Your task to perform on an android device: open app "Fetch Rewards" (install if not already installed) and go to login screen Image 0: 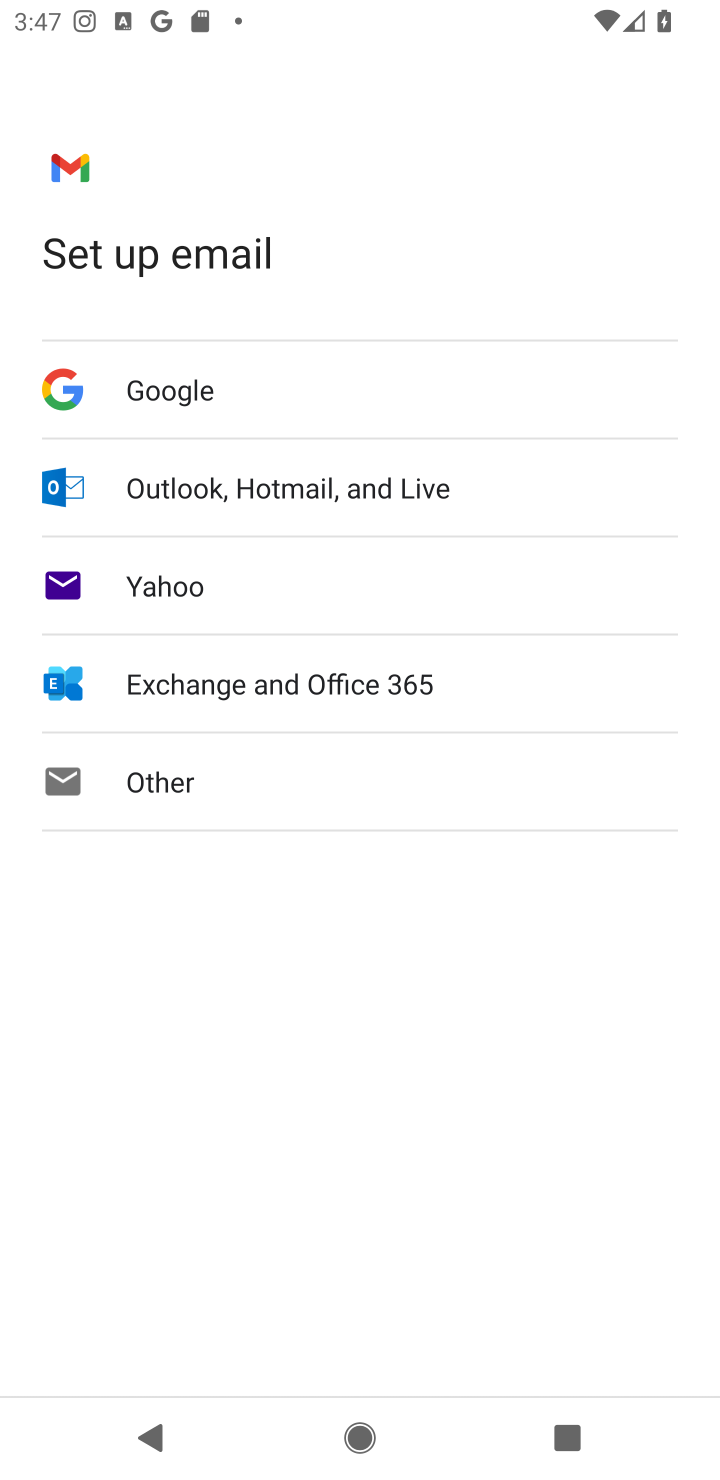
Step 0: press home button
Your task to perform on an android device: open app "Fetch Rewards" (install if not already installed) and go to login screen Image 1: 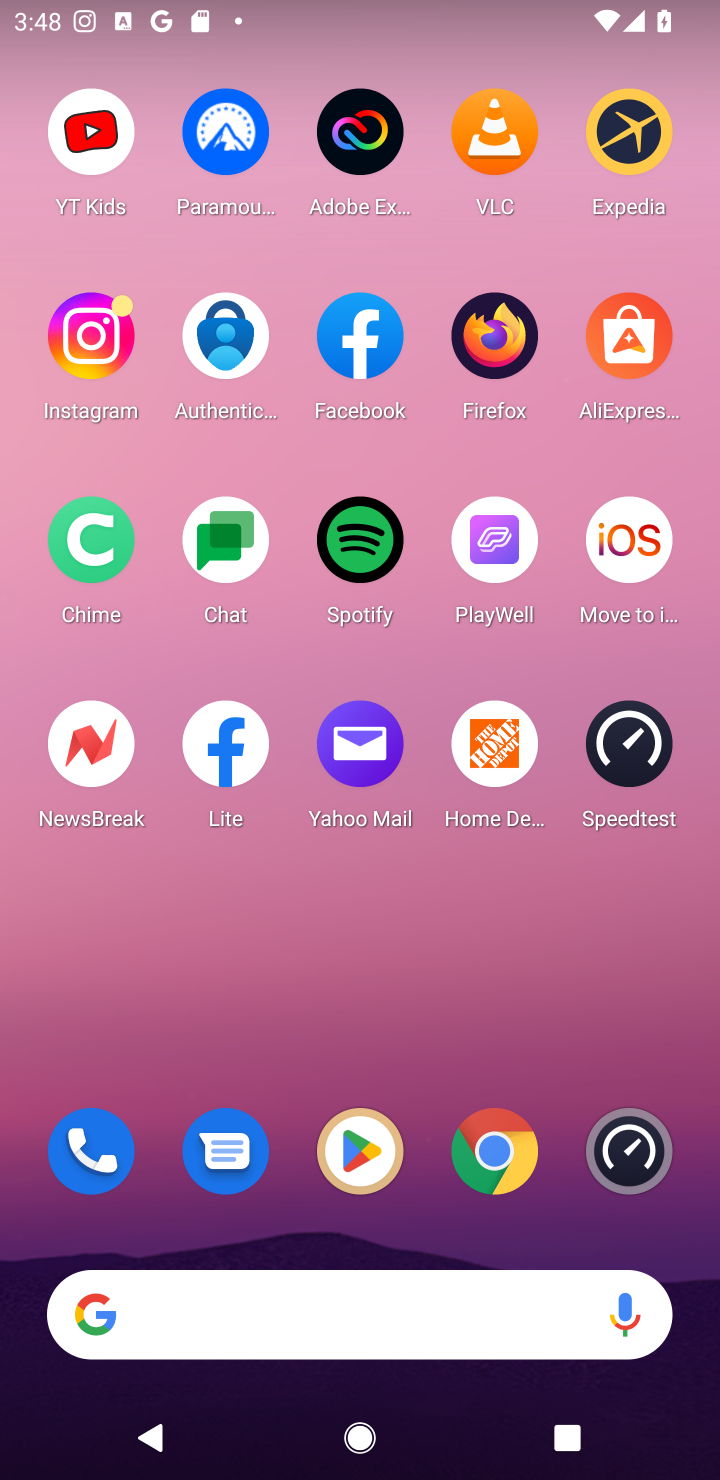
Step 1: press home button
Your task to perform on an android device: open app "Fetch Rewards" (install if not already installed) and go to login screen Image 2: 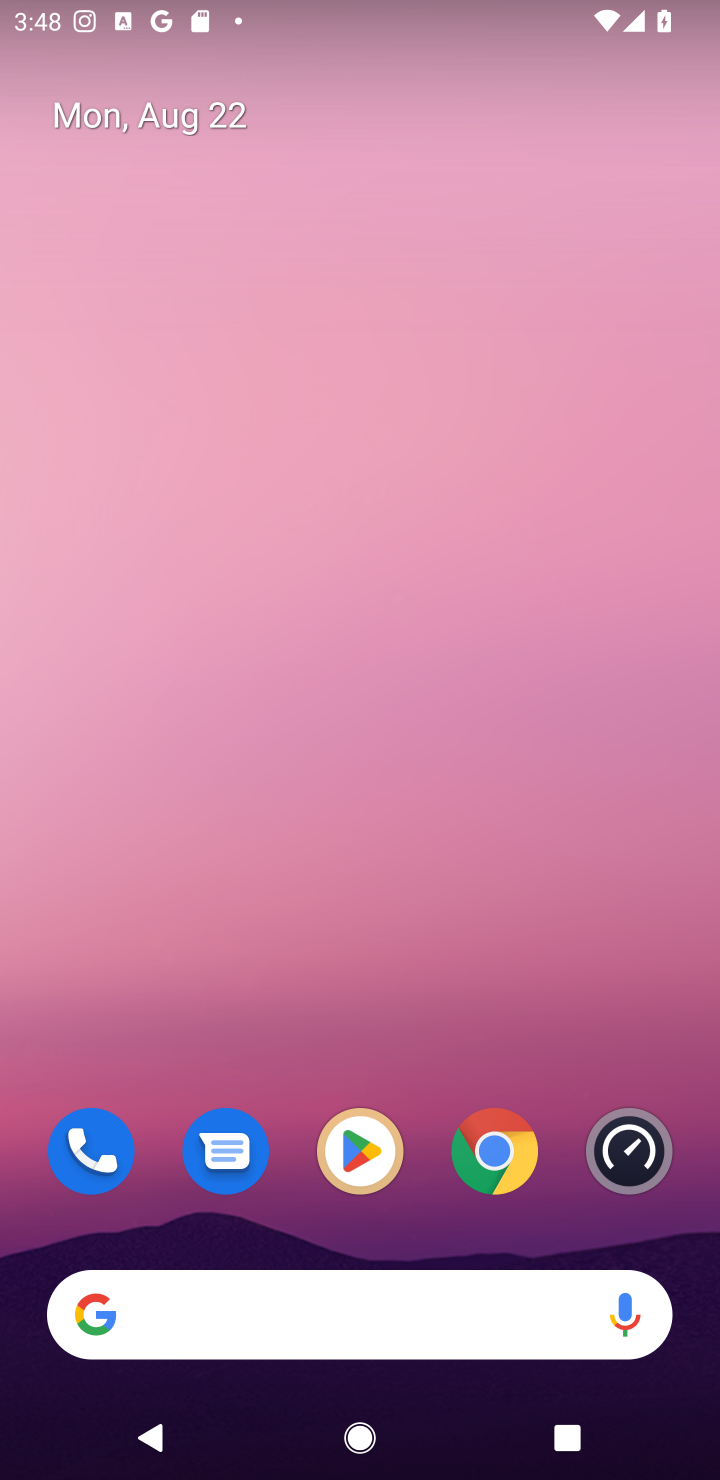
Step 2: click (354, 1139)
Your task to perform on an android device: open app "Fetch Rewards" (install if not already installed) and go to login screen Image 3: 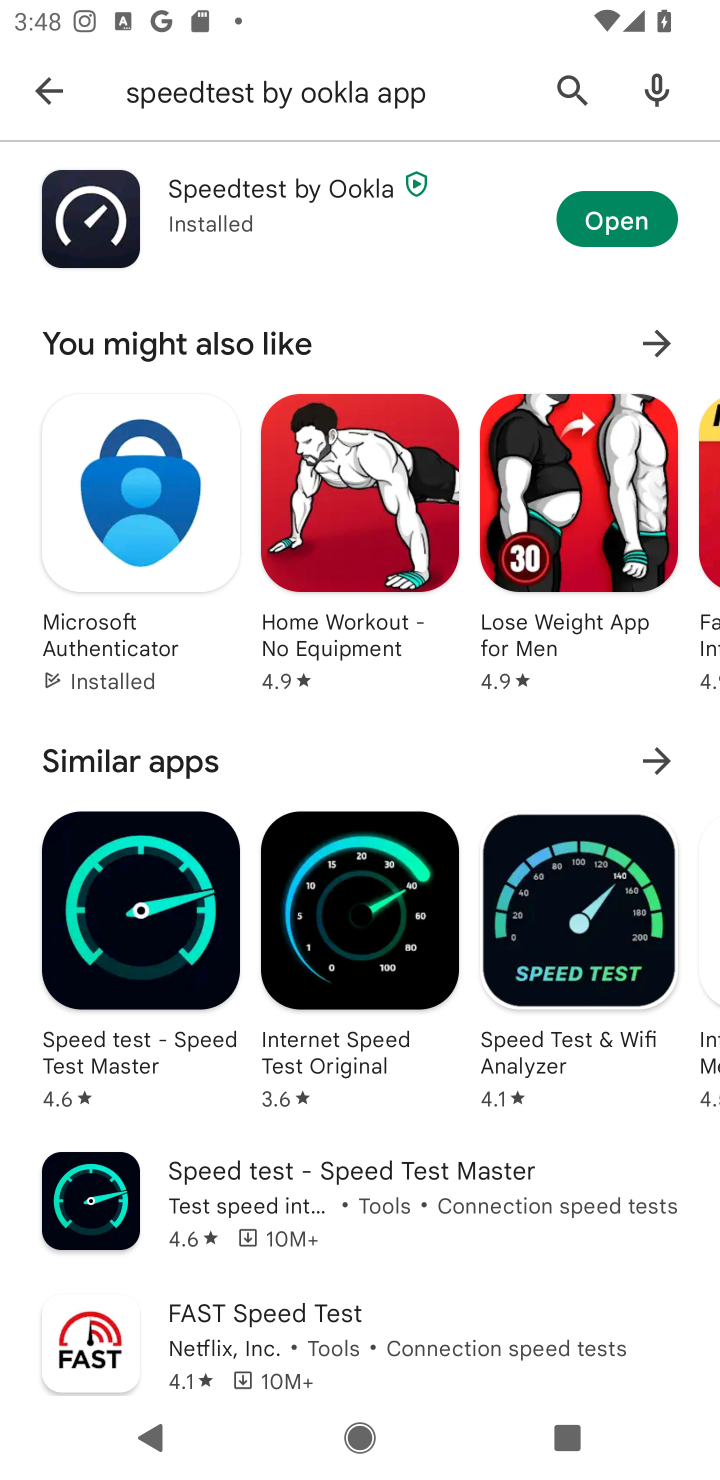
Step 3: click (562, 82)
Your task to perform on an android device: open app "Fetch Rewards" (install if not already installed) and go to login screen Image 4: 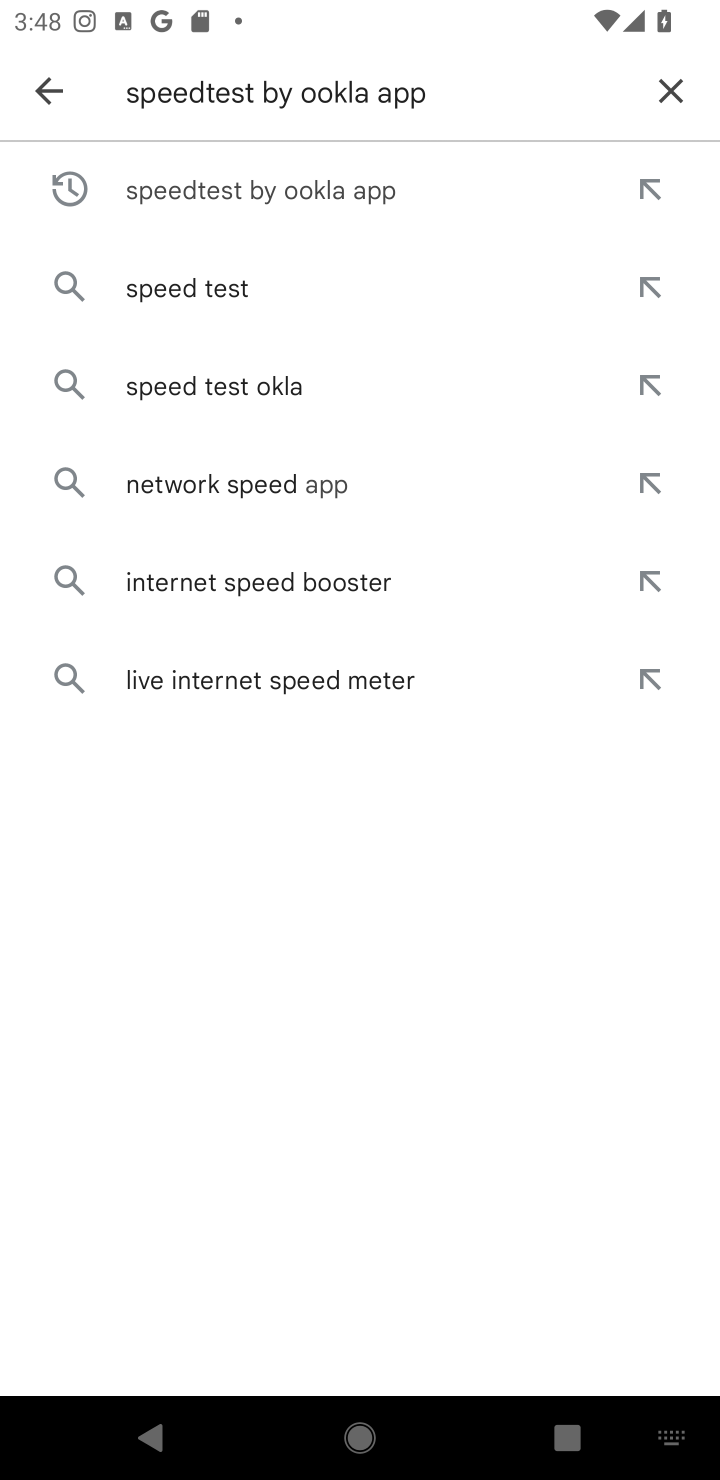
Step 4: click (661, 92)
Your task to perform on an android device: open app "Fetch Rewards" (install if not already installed) and go to login screen Image 5: 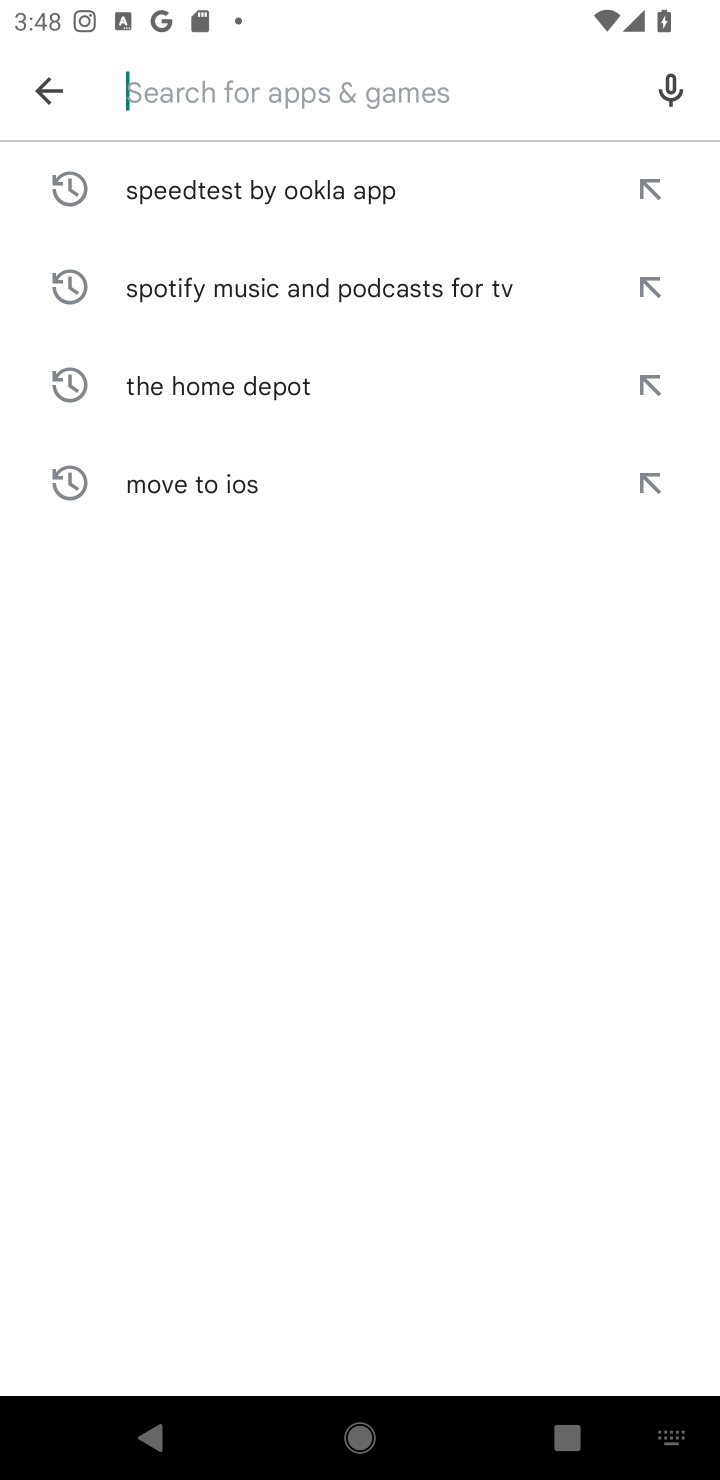
Step 5: type "Fetch Rewards"
Your task to perform on an android device: open app "Fetch Rewards" (install if not already installed) and go to login screen Image 6: 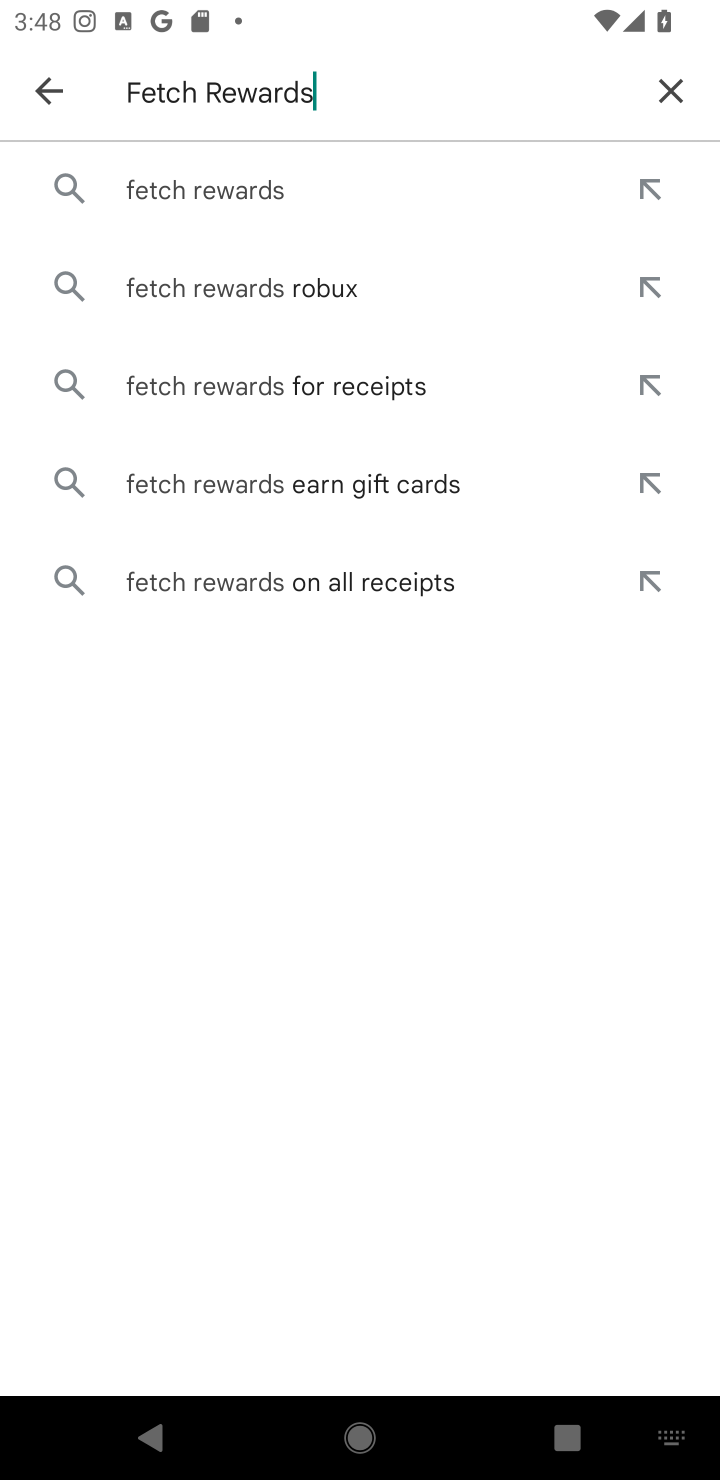
Step 6: click (256, 187)
Your task to perform on an android device: open app "Fetch Rewards" (install if not already installed) and go to login screen Image 7: 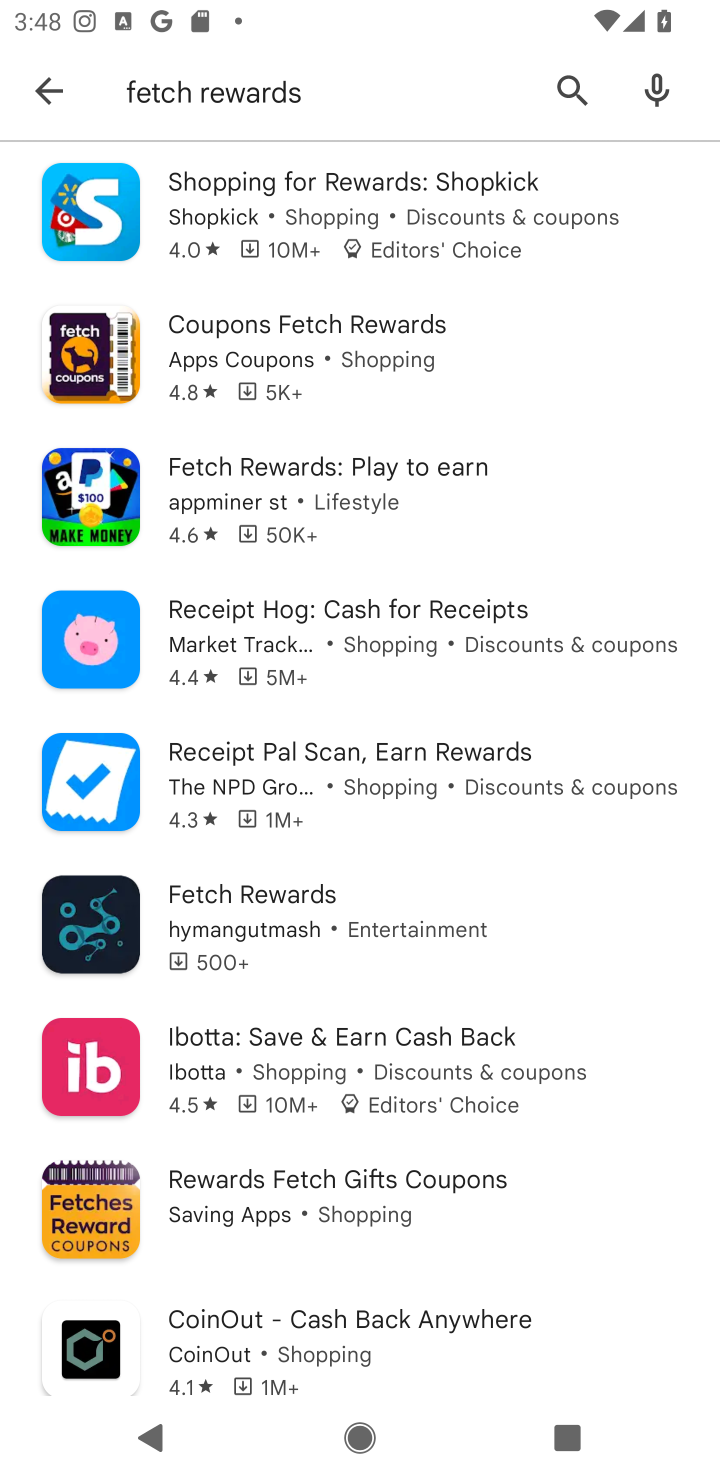
Step 7: click (212, 884)
Your task to perform on an android device: open app "Fetch Rewards" (install if not already installed) and go to login screen Image 8: 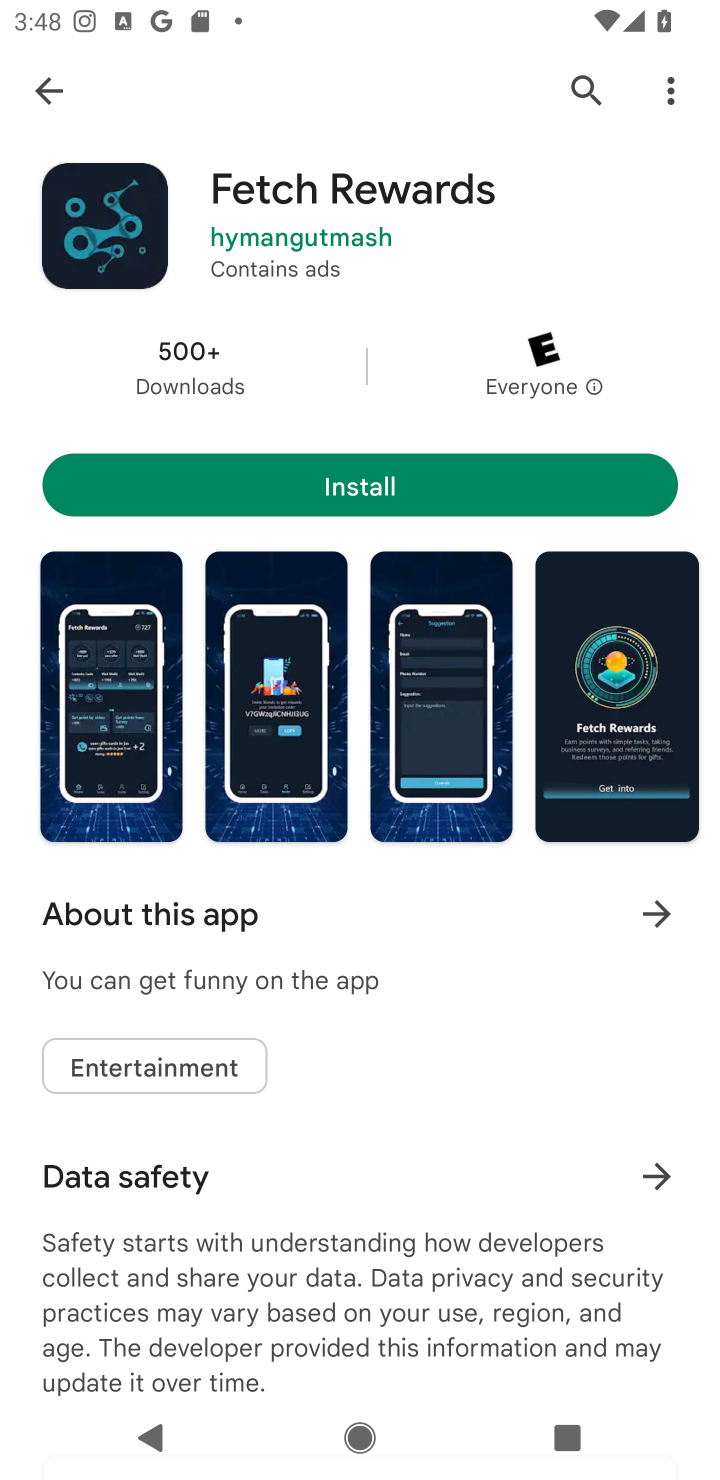
Step 8: click (393, 490)
Your task to perform on an android device: open app "Fetch Rewards" (install if not already installed) and go to login screen Image 9: 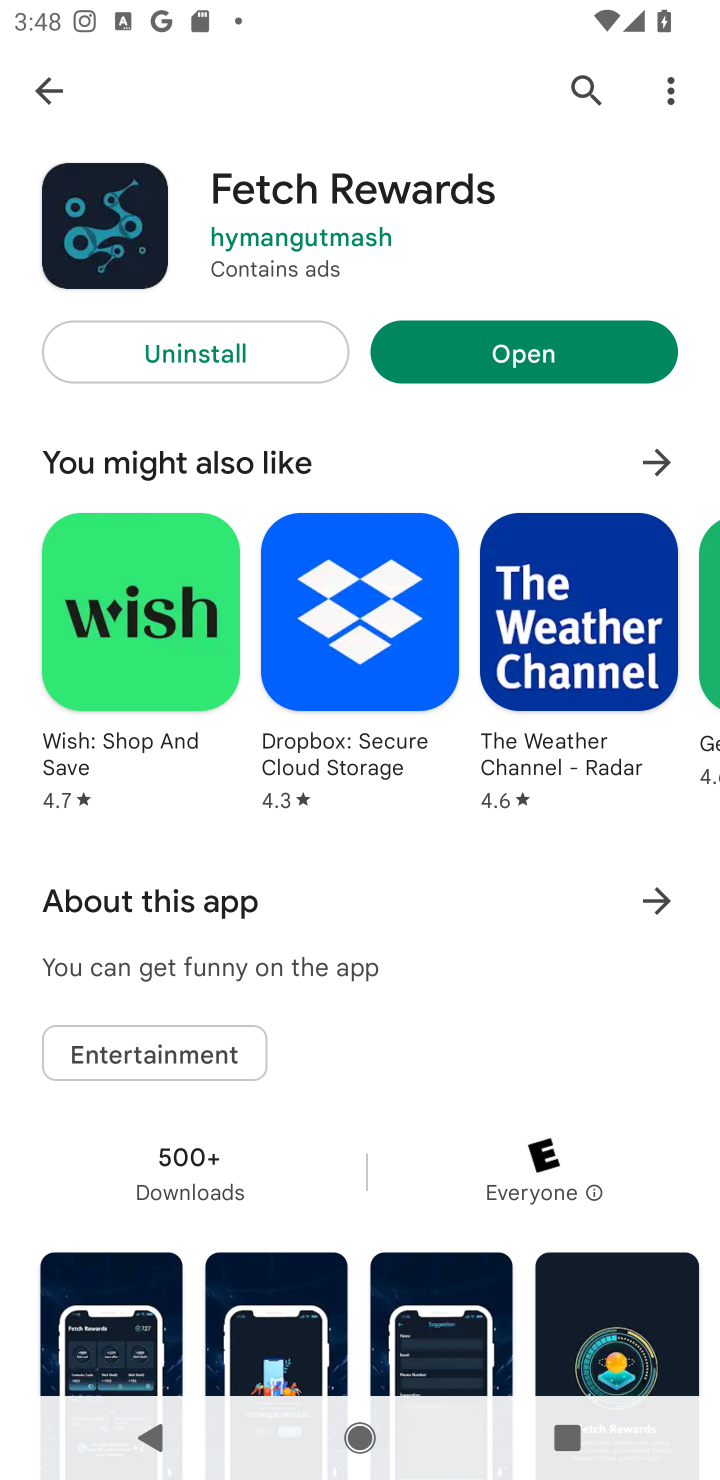
Step 9: click (550, 359)
Your task to perform on an android device: open app "Fetch Rewards" (install if not already installed) and go to login screen Image 10: 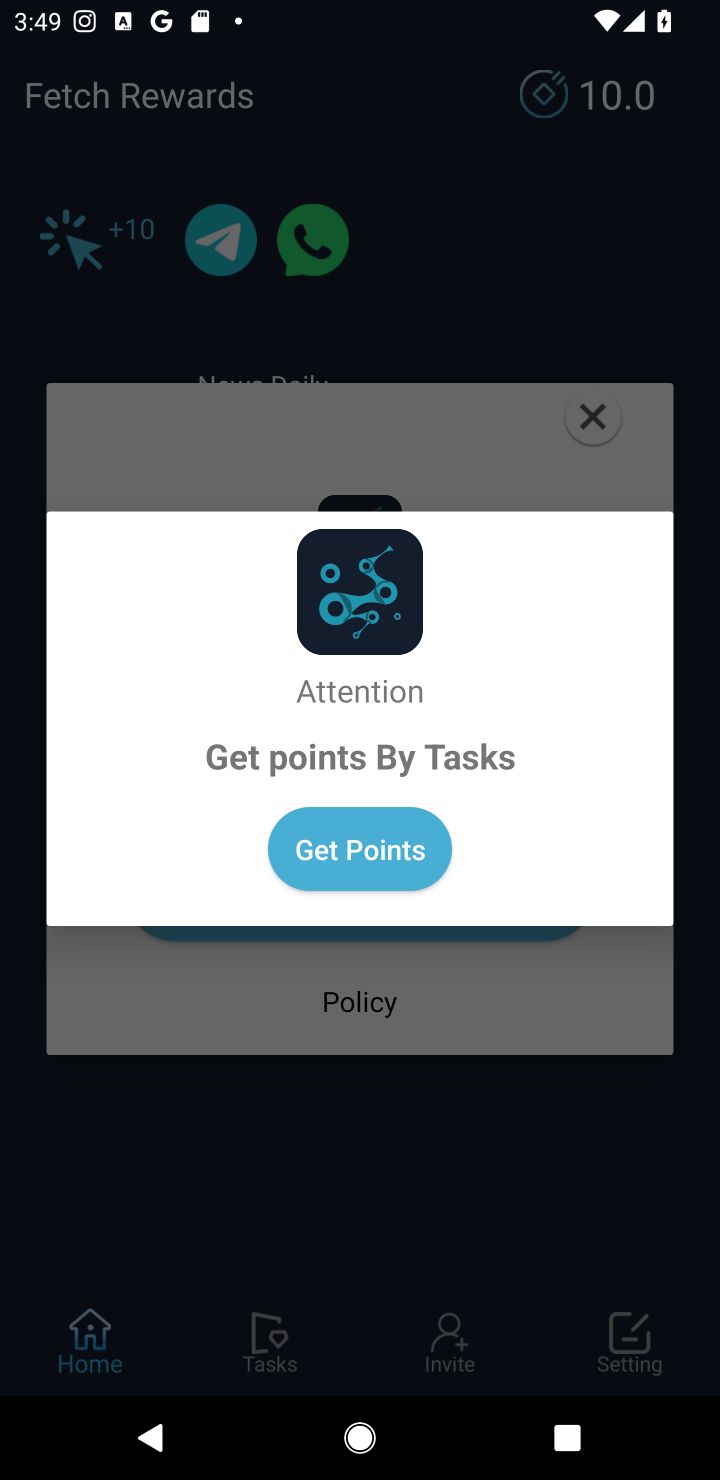
Step 10: task complete